Your task to perform on an android device: toggle javascript in the chrome app Image 0: 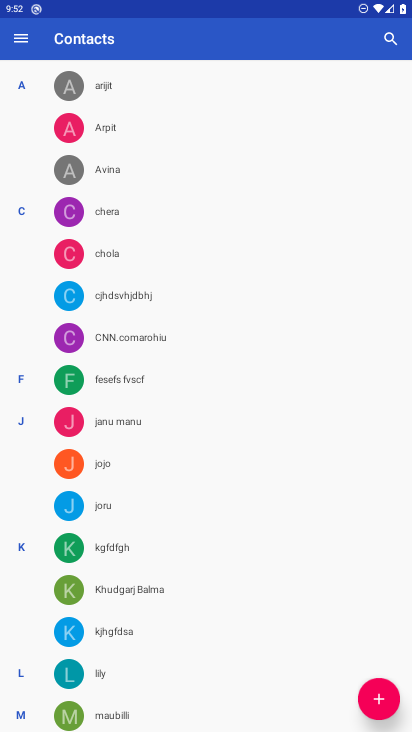
Step 0: press home button
Your task to perform on an android device: toggle javascript in the chrome app Image 1: 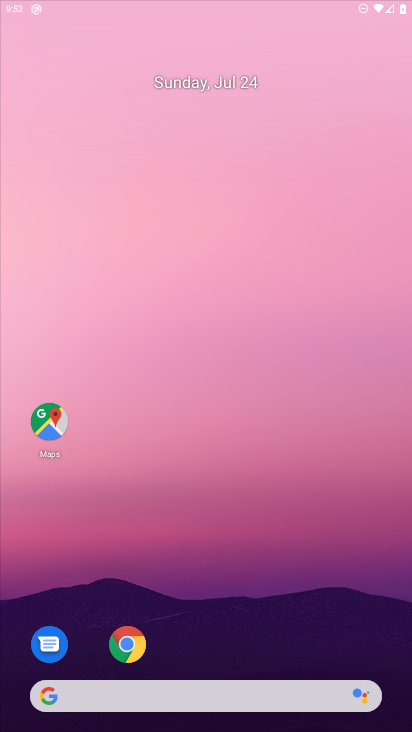
Step 1: drag from (277, 693) to (258, 233)
Your task to perform on an android device: toggle javascript in the chrome app Image 2: 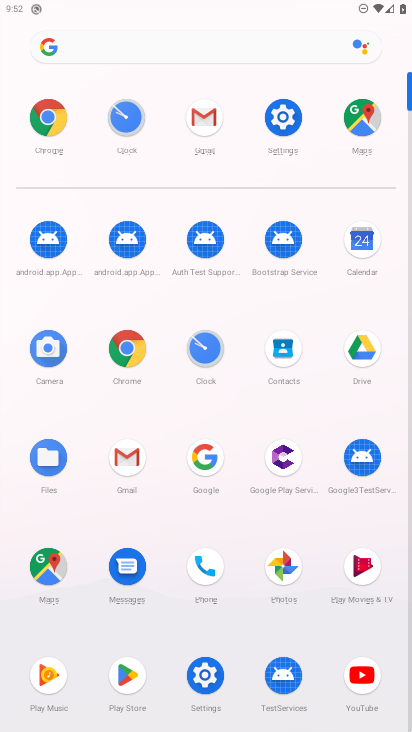
Step 2: click (38, 118)
Your task to perform on an android device: toggle javascript in the chrome app Image 3: 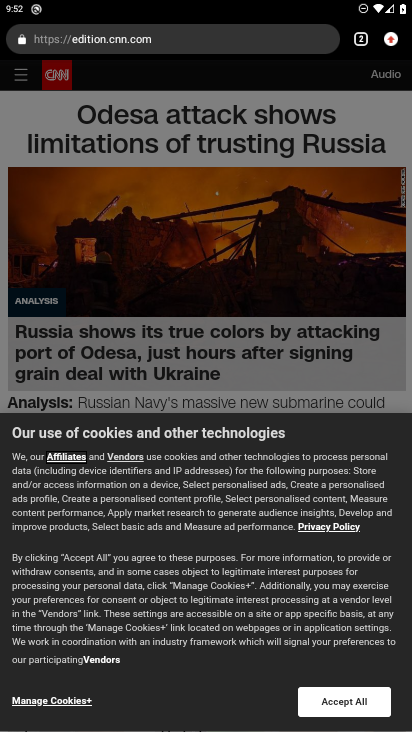
Step 3: drag from (398, 54) to (246, 480)
Your task to perform on an android device: toggle javascript in the chrome app Image 4: 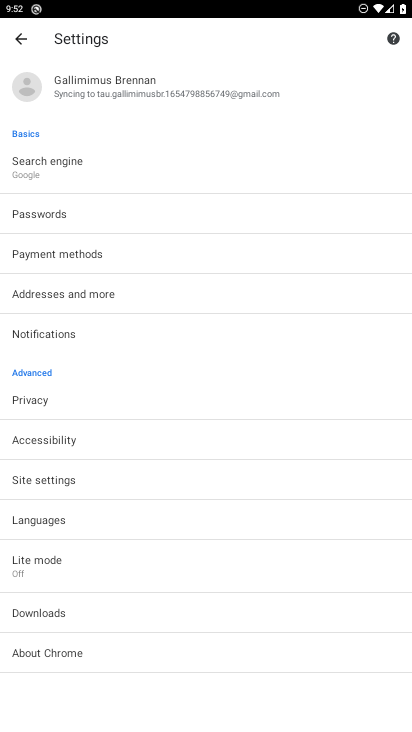
Step 4: click (105, 487)
Your task to perform on an android device: toggle javascript in the chrome app Image 5: 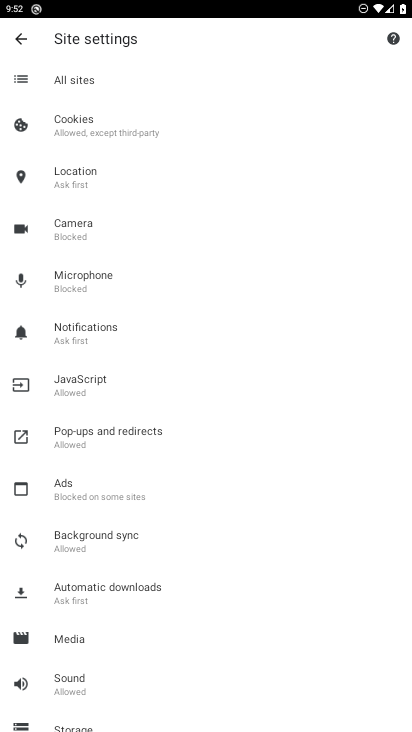
Step 5: click (89, 375)
Your task to perform on an android device: toggle javascript in the chrome app Image 6: 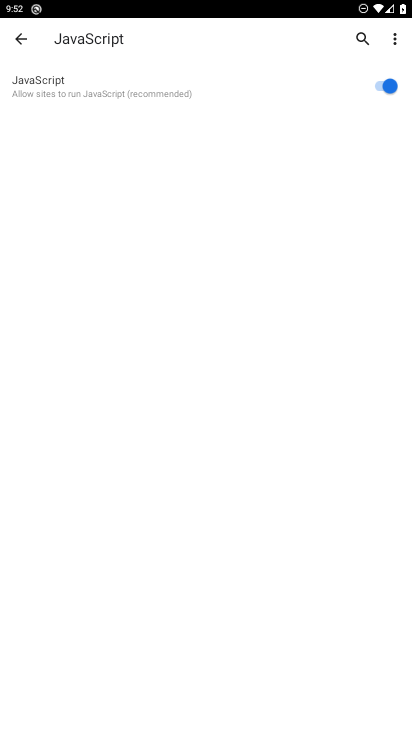
Step 6: click (312, 81)
Your task to perform on an android device: toggle javascript in the chrome app Image 7: 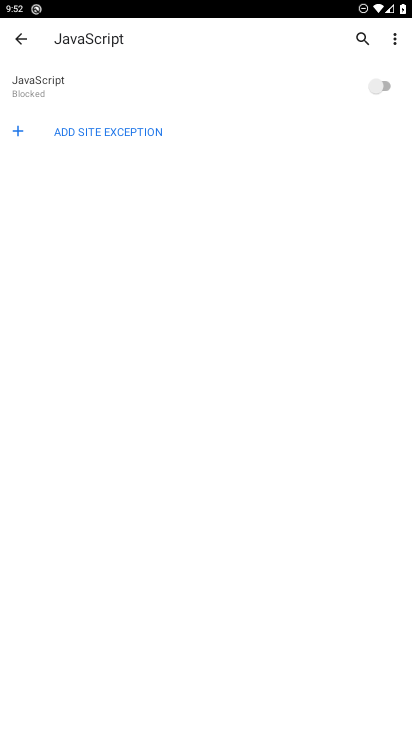
Step 7: task complete